Your task to perform on an android device: open wifi settings Image 0: 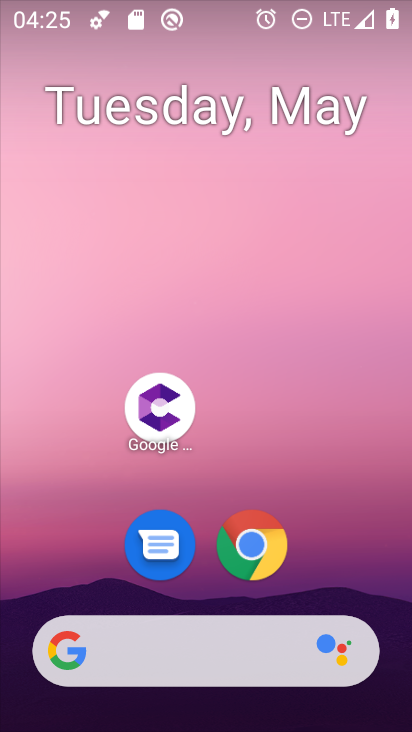
Step 0: drag from (365, 584) to (359, 191)
Your task to perform on an android device: open wifi settings Image 1: 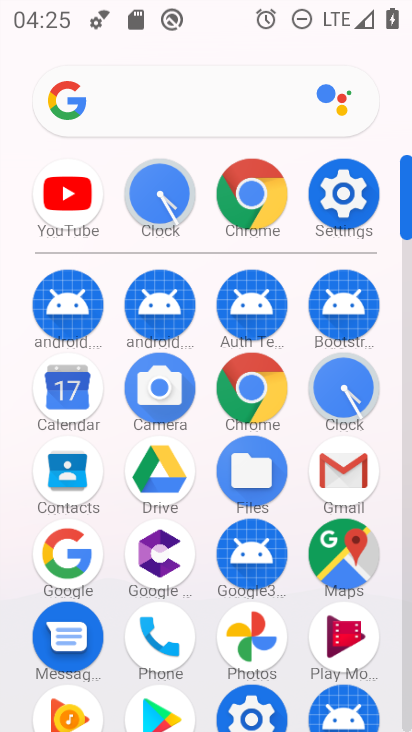
Step 1: click (355, 195)
Your task to perform on an android device: open wifi settings Image 2: 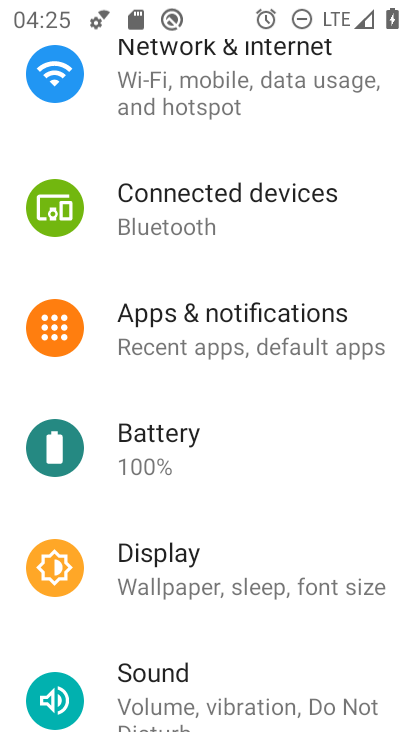
Step 2: drag from (349, 523) to (353, 404)
Your task to perform on an android device: open wifi settings Image 3: 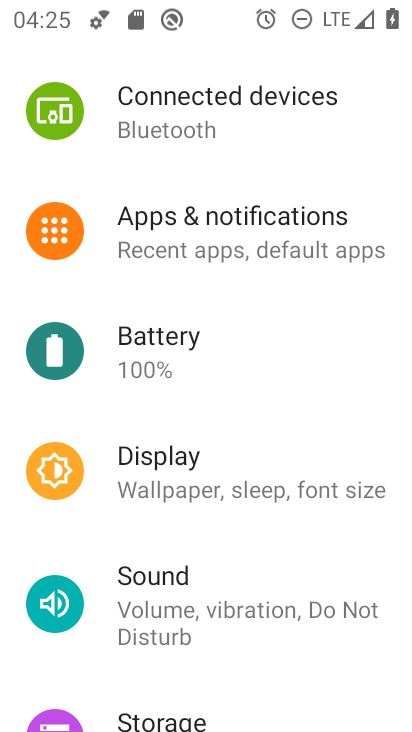
Step 3: drag from (333, 531) to (347, 372)
Your task to perform on an android device: open wifi settings Image 4: 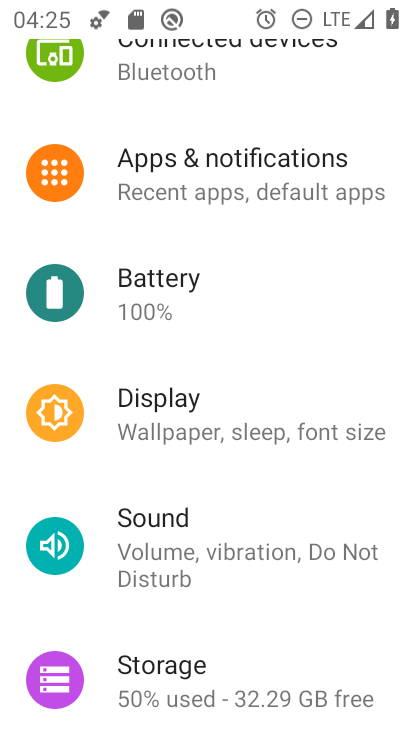
Step 4: drag from (262, 611) to (262, 473)
Your task to perform on an android device: open wifi settings Image 5: 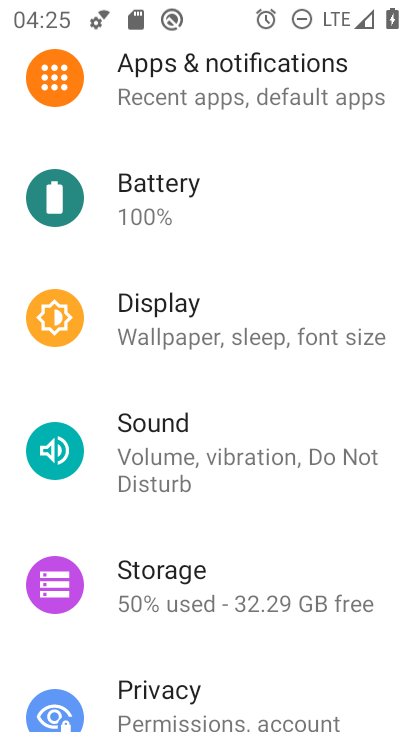
Step 5: drag from (270, 543) to (294, 384)
Your task to perform on an android device: open wifi settings Image 6: 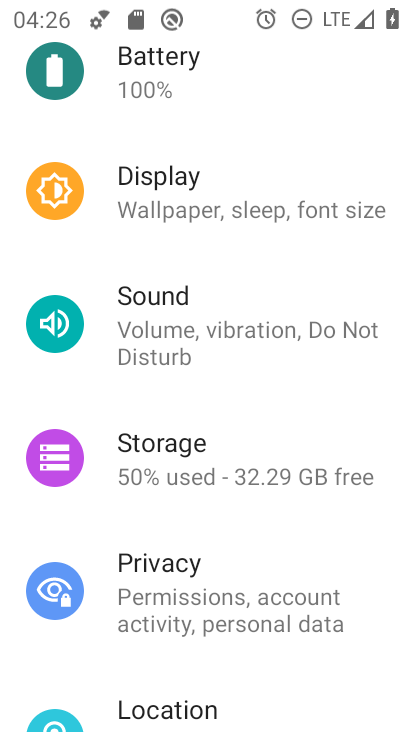
Step 6: drag from (294, 535) to (302, 382)
Your task to perform on an android device: open wifi settings Image 7: 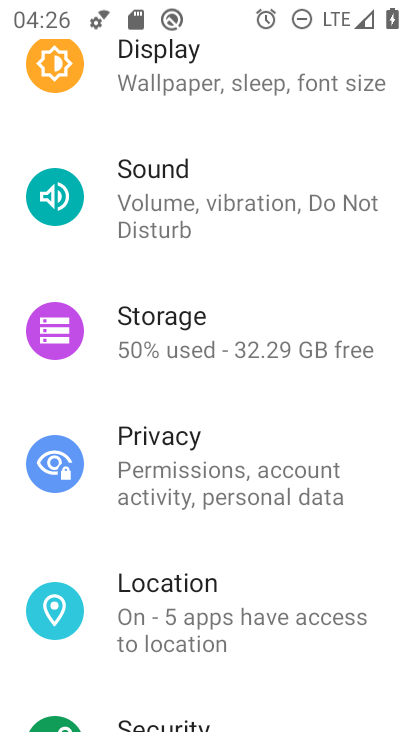
Step 7: drag from (306, 553) to (314, 427)
Your task to perform on an android device: open wifi settings Image 8: 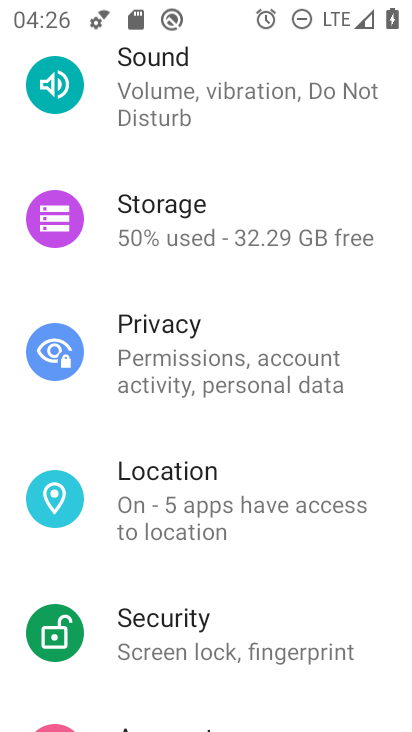
Step 8: drag from (315, 564) to (305, 420)
Your task to perform on an android device: open wifi settings Image 9: 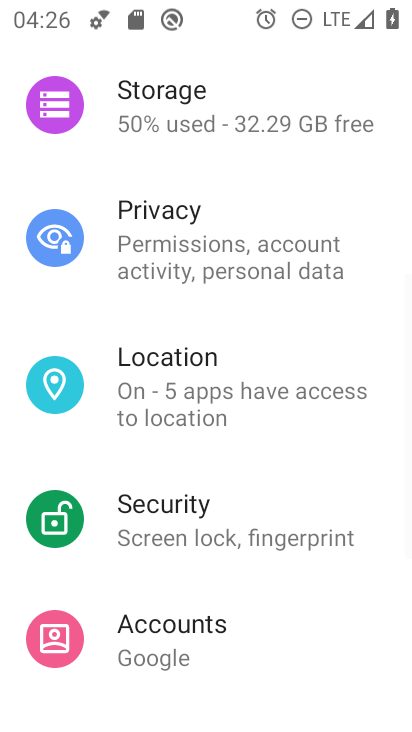
Step 9: drag from (309, 495) to (309, 310)
Your task to perform on an android device: open wifi settings Image 10: 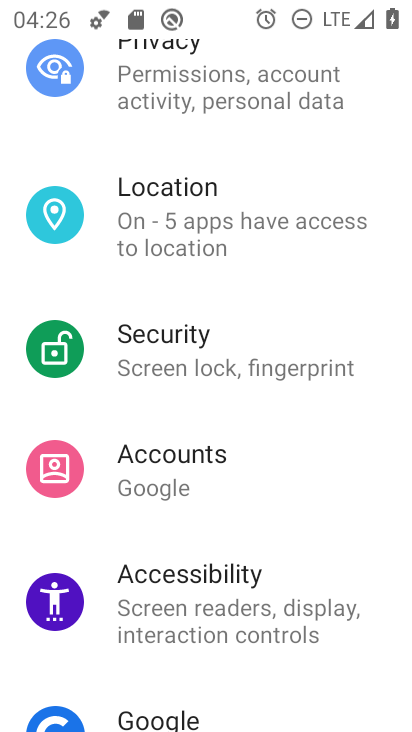
Step 10: drag from (358, 275) to (346, 438)
Your task to perform on an android device: open wifi settings Image 11: 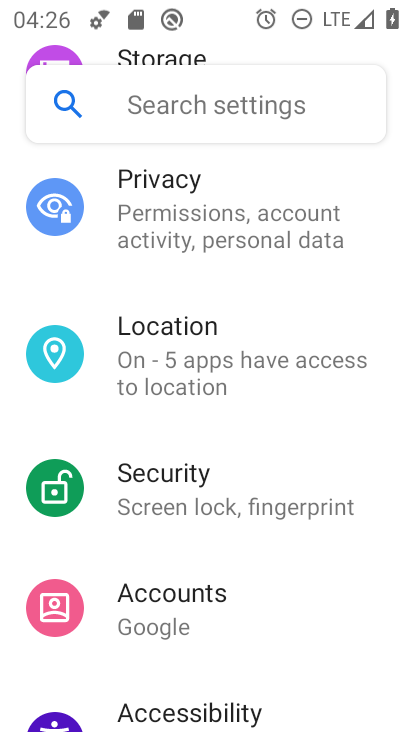
Step 11: drag from (379, 232) to (370, 422)
Your task to perform on an android device: open wifi settings Image 12: 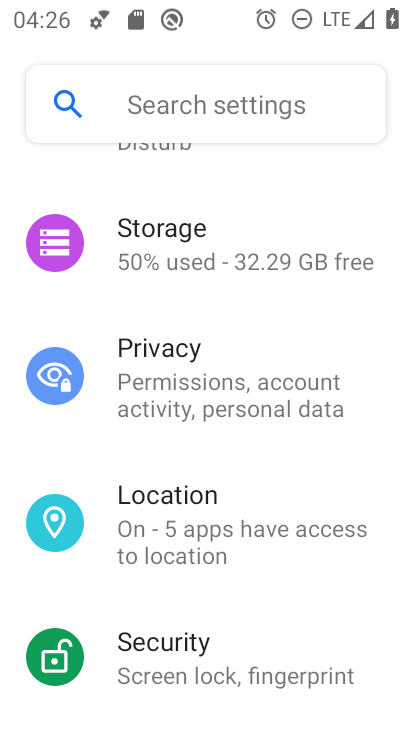
Step 12: drag from (369, 229) to (372, 355)
Your task to perform on an android device: open wifi settings Image 13: 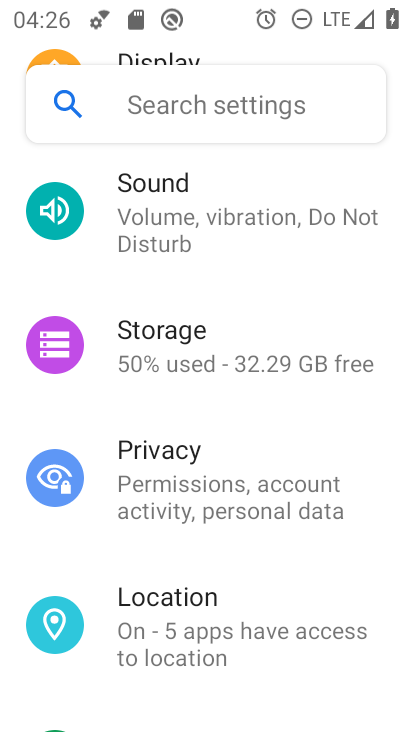
Step 13: drag from (374, 188) to (374, 365)
Your task to perform on an android device: open wifi settings Image 14: 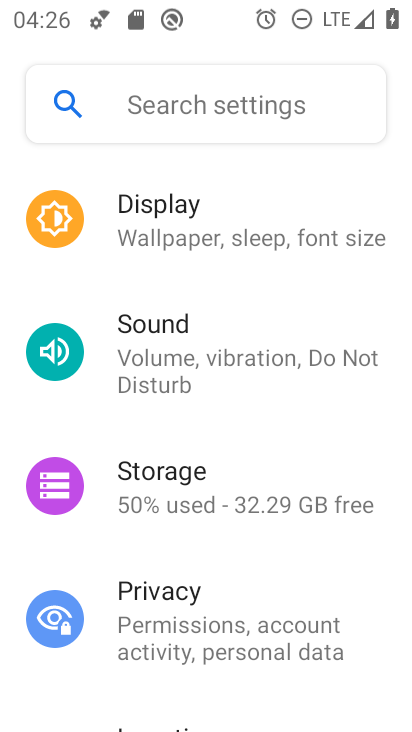
Step 14: drag from (376, 186) to (373, 333)
Your task to perform on an android device: open wifi settings Image 15: 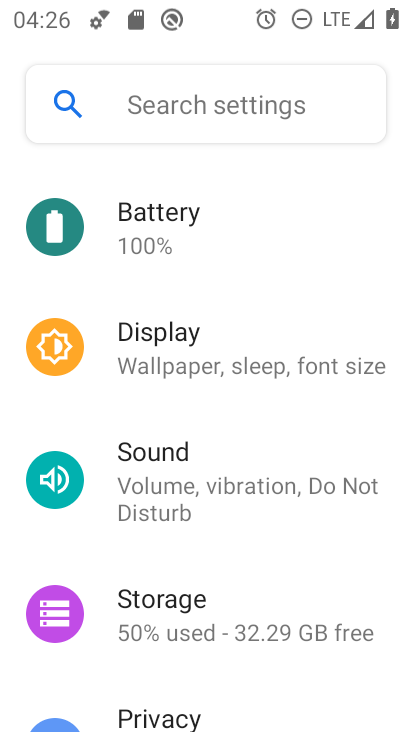
Step 15: drag from (367, 190) to (360, 351)
Your task to perform on an android device: open wifi settings Image 16: 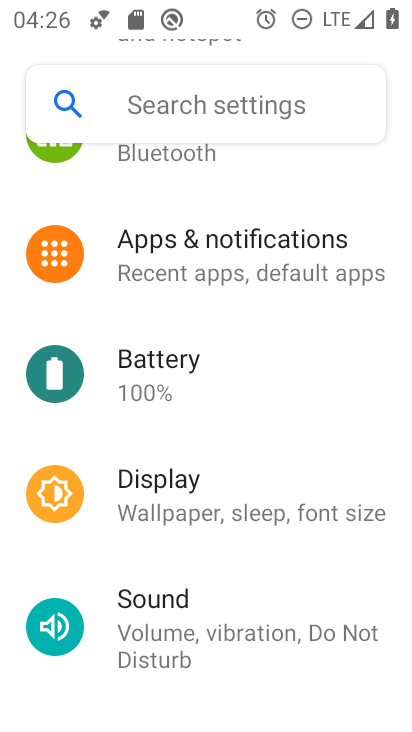
Step 16: drag from (355, 191) to (356, 337)
Your task to perform on an android device: open wifi settings Image 17: 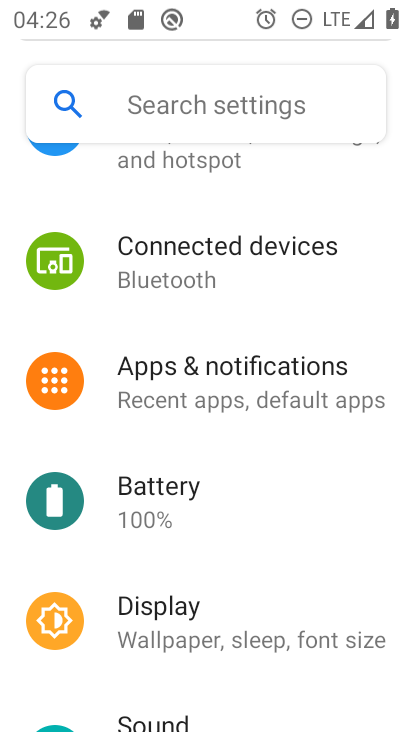
Step 17: drag from (350, 187) to (344, 330)
Your task to perform on an android device: open wifi settings Image 18: 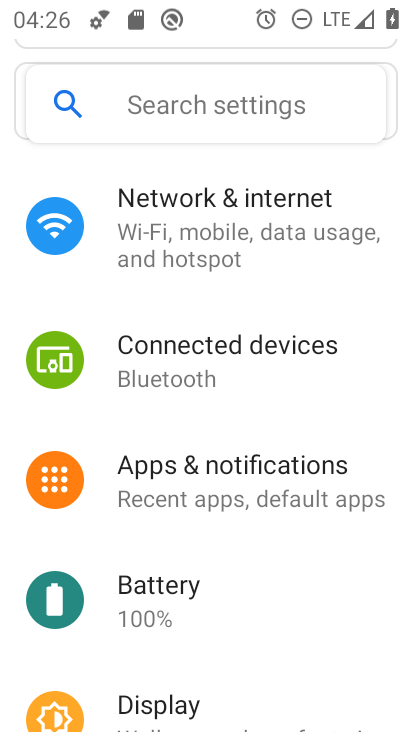
Step 18: click (311, 214)
Your task to perform on an android device: open wifi settings Image 19: 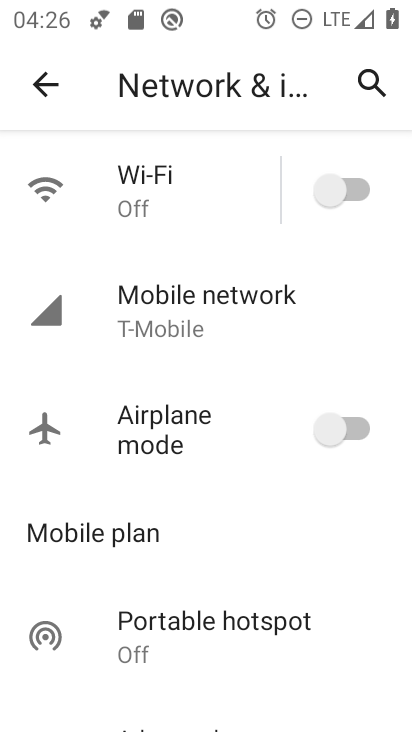
Step 19: click (158, 214)
Your task to perform on an android device: open wifi settings Image 20: 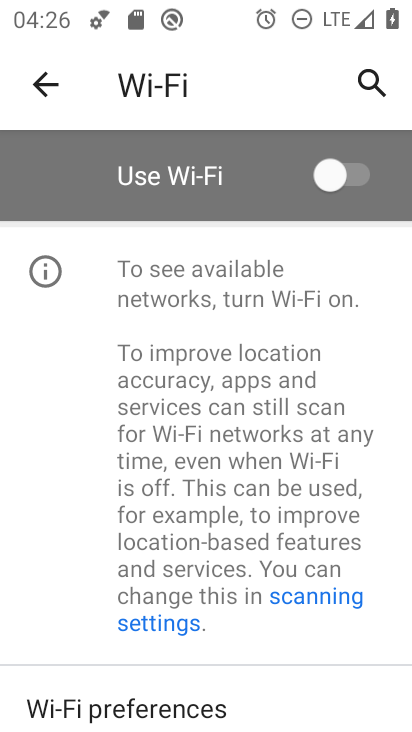
Step 20: task complete